Your task to perform on an android device: Open Yahoo.com Image 0: 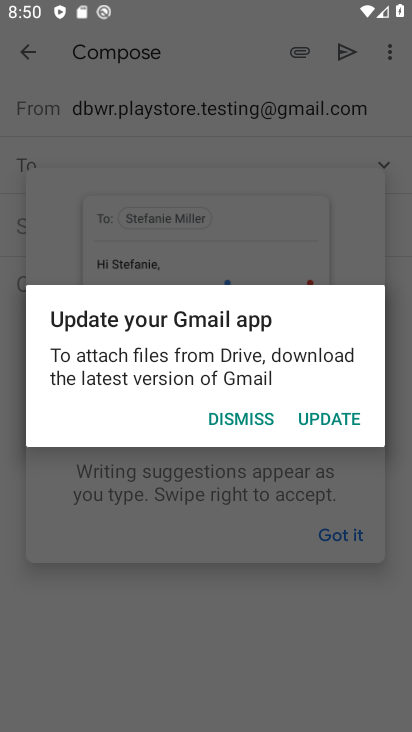
Step 0: press home button
Your task to perform on an android device: Open Yahoo.com Image 1: 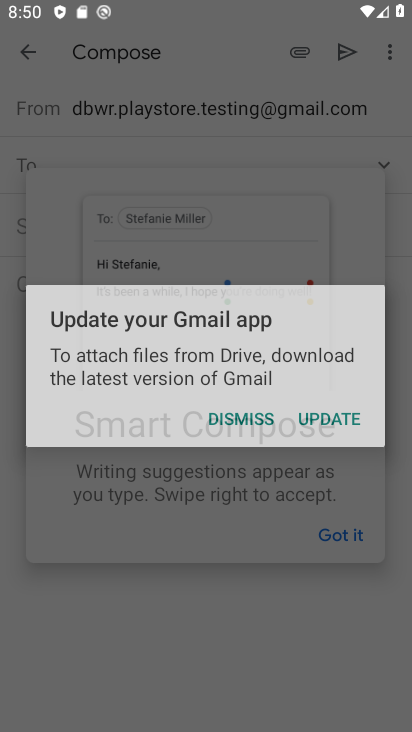
Step 1: press home button
Your task to perform on an android device: Open Yahoo.com Image 2: 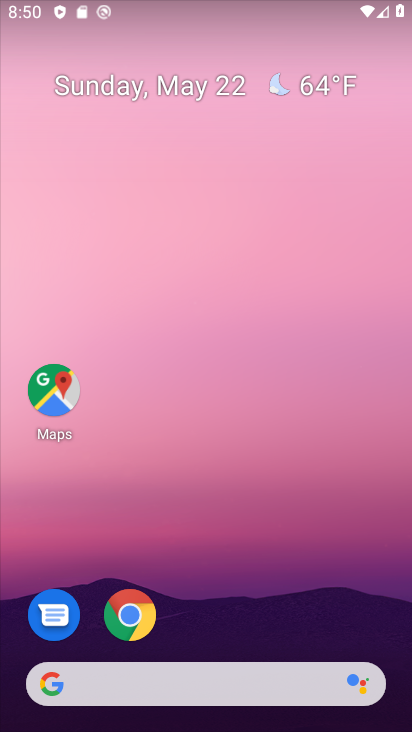
Step 2: drag from (235, 611) to (290, 210)
Your task to perform on an android device: Open Yahoo.com Image 3: 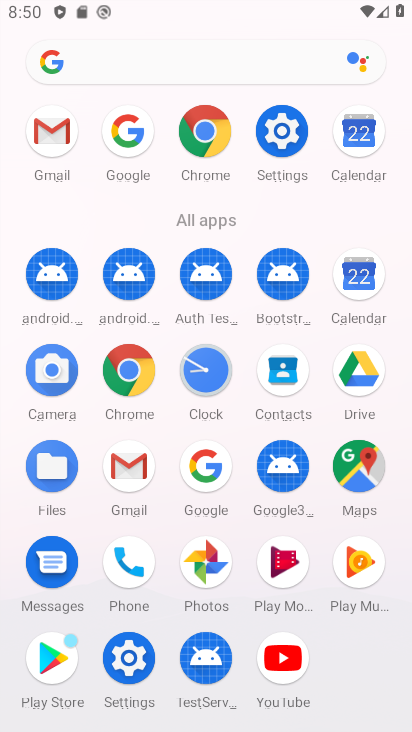
Step 3: click (213, 475)
Your task to perform on an android device: Open Yahoo.com Image 4: 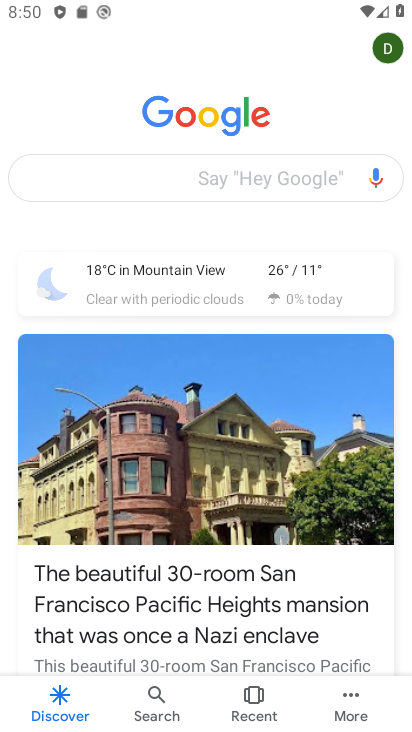
Step 4: click (234, 167)
Your task to perform on an android device: Open Yahoo.com Image 5: 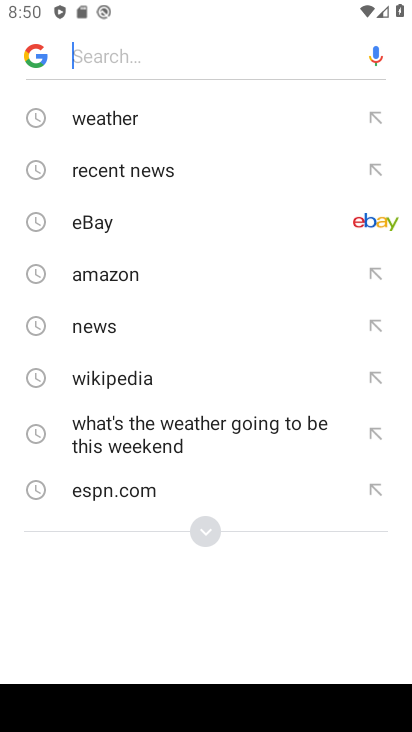
Step 5: type "yahoo.com"
Your task to perform on an android device: Open Yahoo.com Image 6: 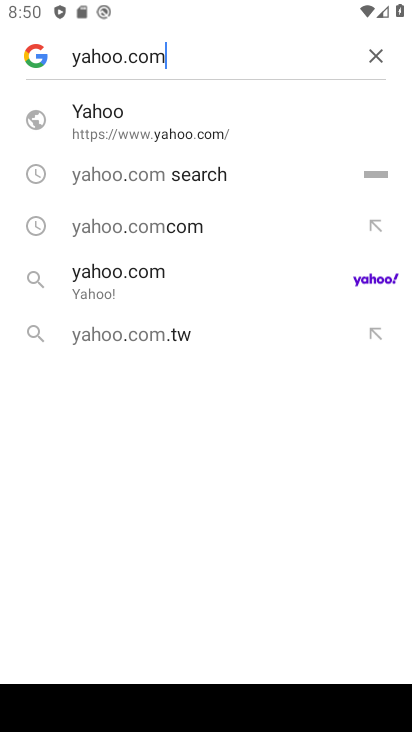
Step 6: click (178, 174)
Your task to perform on an android device: Open Yahoo.com Image 7: 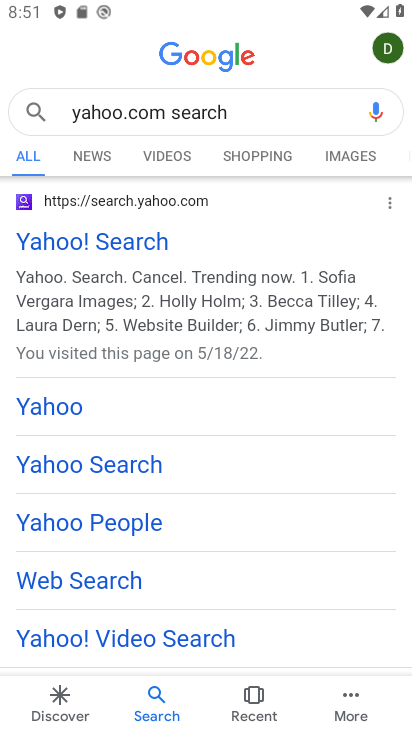
Step 7: task complete